Your task to perform on an android device: turn off airplane mode Image 0: 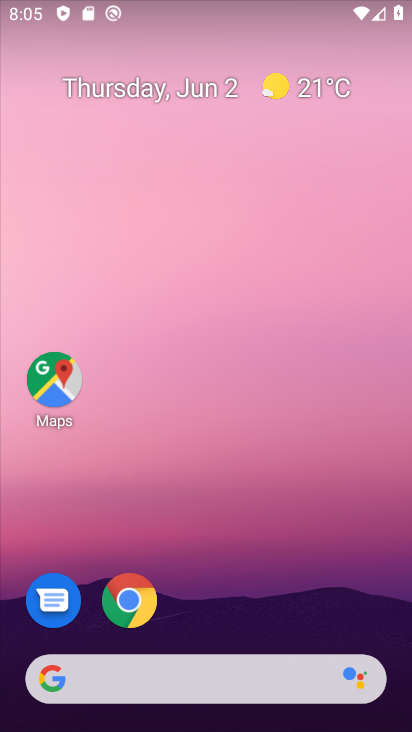
Step 0: drag from (226, 620) to (232, 237)
Your task to perform on an android device: turn off airplane mode Image 1: 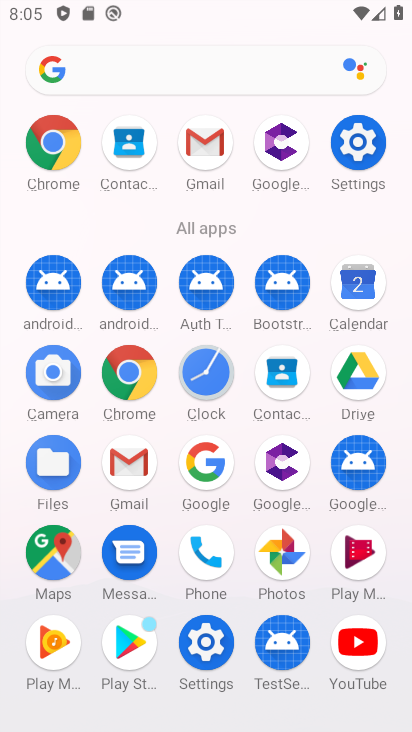
Step 1: click (346, 173)
Your task to perform on an android device: turn off airplane mode Image 2: 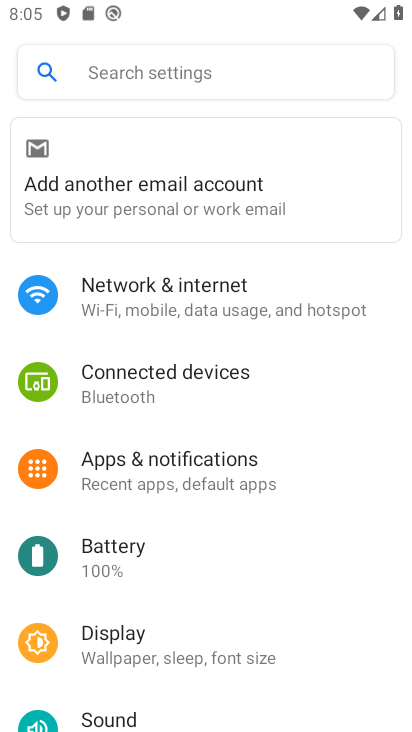
Step 2: click (237, 300)
Your task to perform on an android device: turn off airplane mode Image 3: 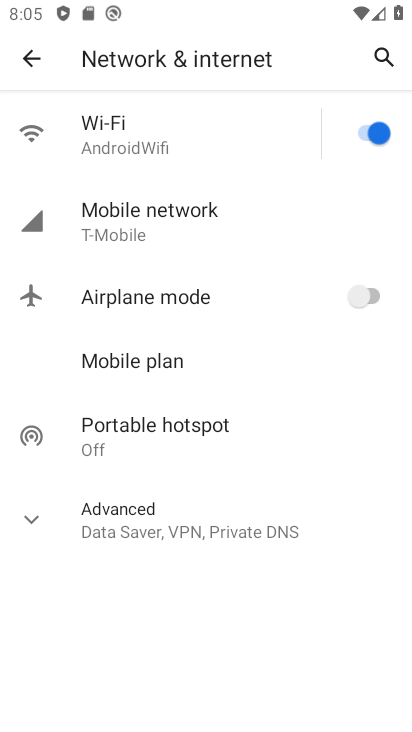
Step 3: task complete